Your task to perform on an android device: Is it going to rain today? Image 0: 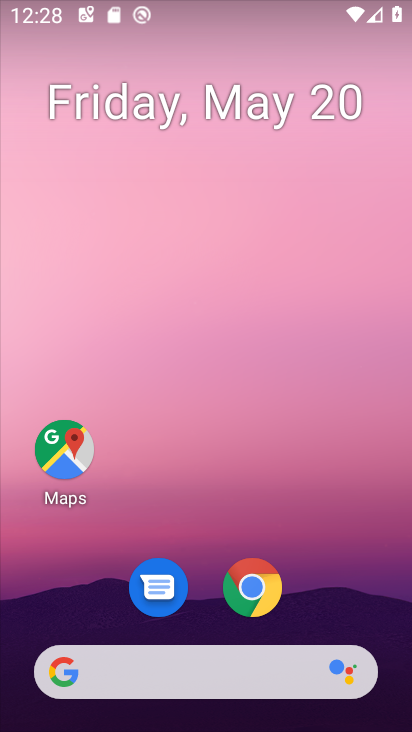
Step 0: click (247, 673)
Your task to perform on an android device: Is it going to rain today? Image 1: 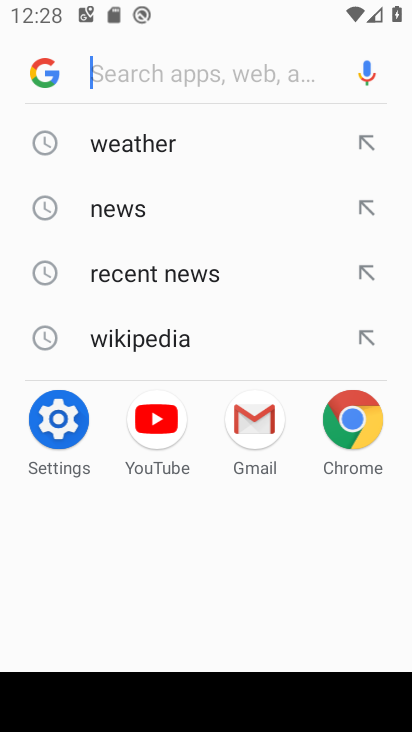
Step 1: click (258, 161)
Your task to perform on an android device: Is it going to rain today? Image 2: 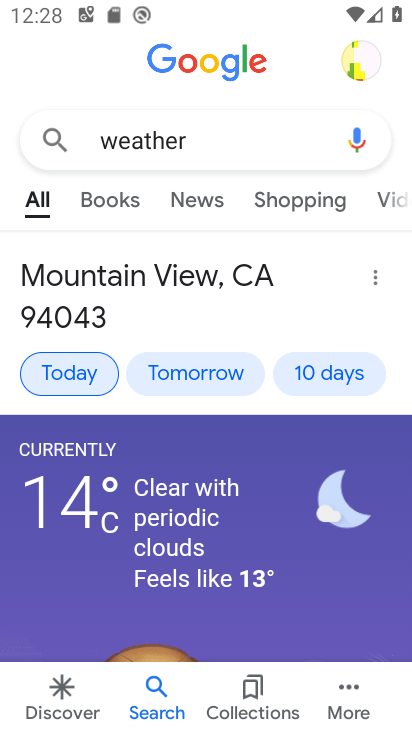
Step 2: click (78, 380)
Your task to perform on an android device: Is it going to rain today? Image 3: 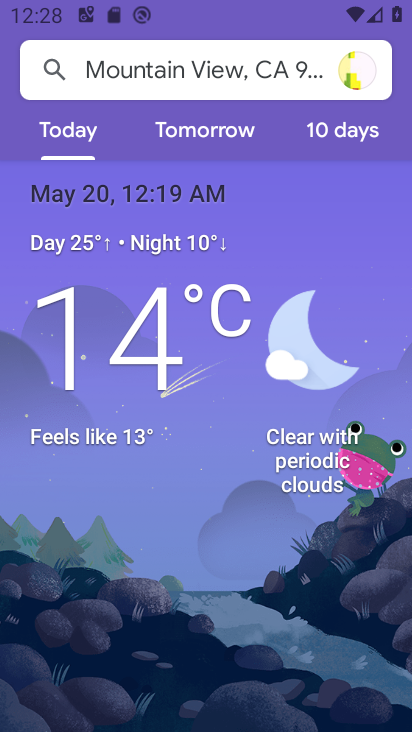
Step 3: task complete